Your task to perform on an android device: open a bookmark in the chrome app Image 0: 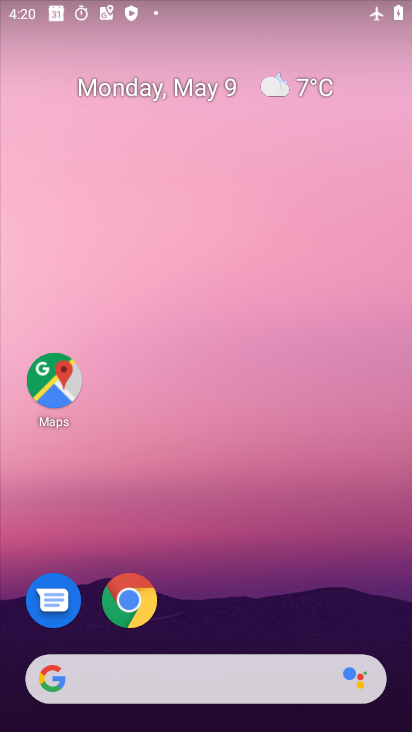
Step 0: click (119, 604)
Your task to perform on an android device: open a bookmark in the chrome app Image 1: 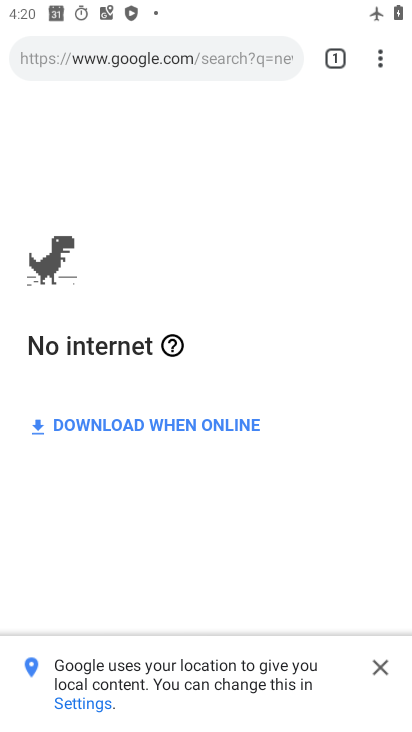
Step 1: task complete